Your task to perform on an android device: toggle notification dots Image 0: 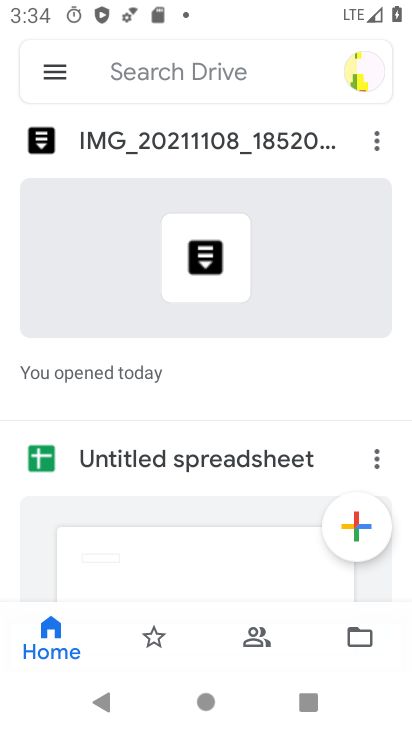
Step 0: press home button
Your task to perform on an android device: toggle notification dots Image 1: 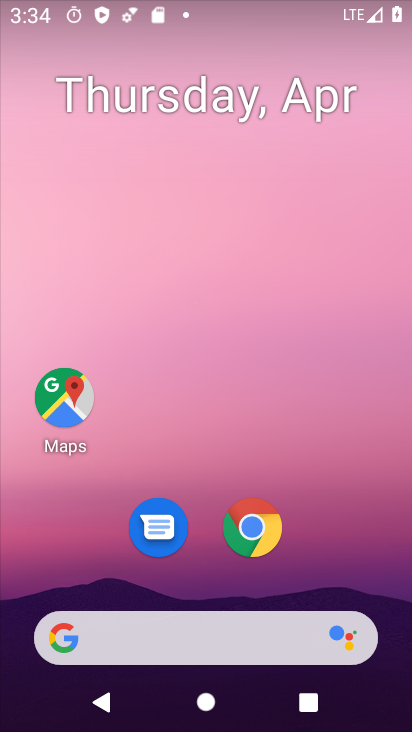
Step 1: drag from (313, 469) to (285, 130)
Your task to perform on an android device: toggle notification dots Image 2: 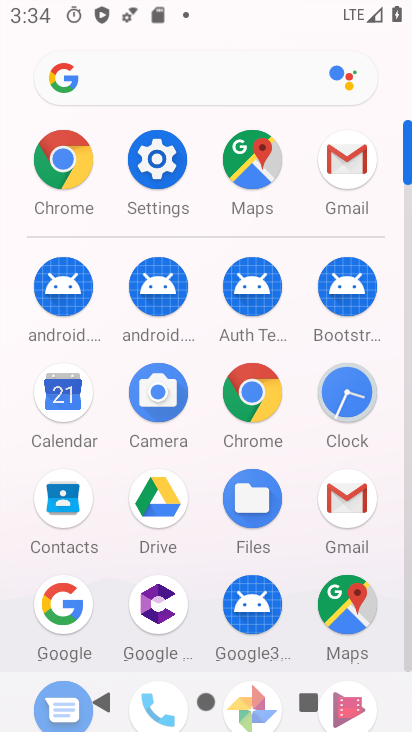
Step 2: click (161, 157)
Your task to perform on an android device: toggle notification dots Image 3: 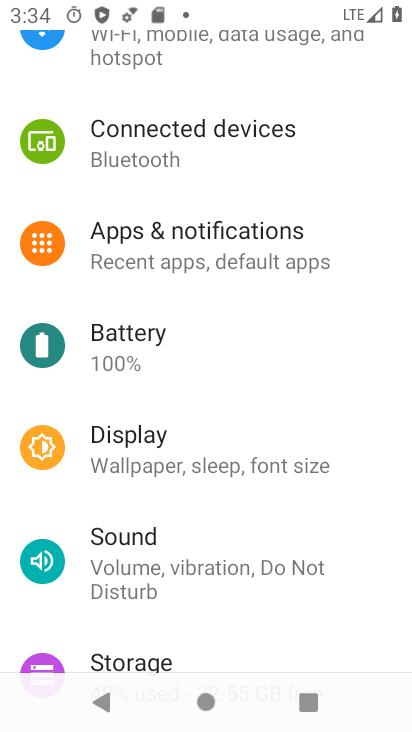
Step 3: drag from (219, 555) to (279, 729)
Your task to perform on an android device: toggle notification dots Image 4: 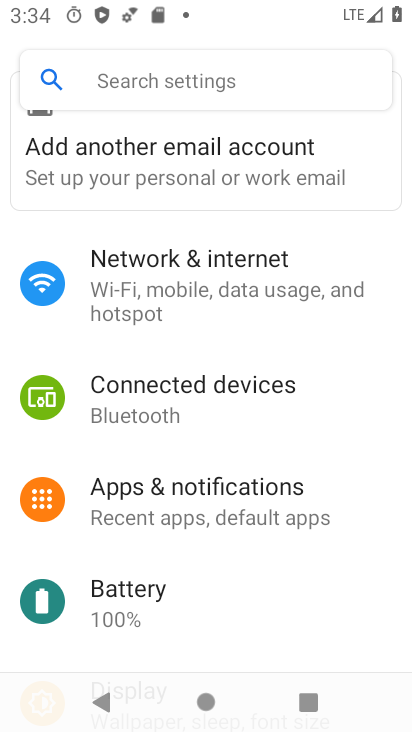
Step 4: click (216, 479)
Your task to perform on an android device: toggle notification dots Image 5: 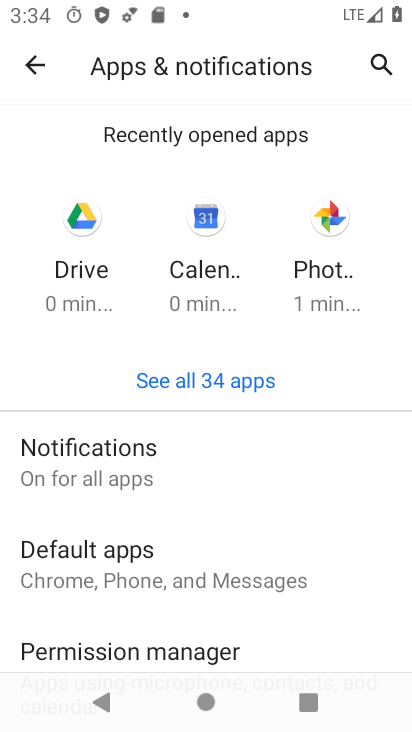
Step 5: click (104, 473)
Your task to perform on an android device: toggle notification dots Image 6: 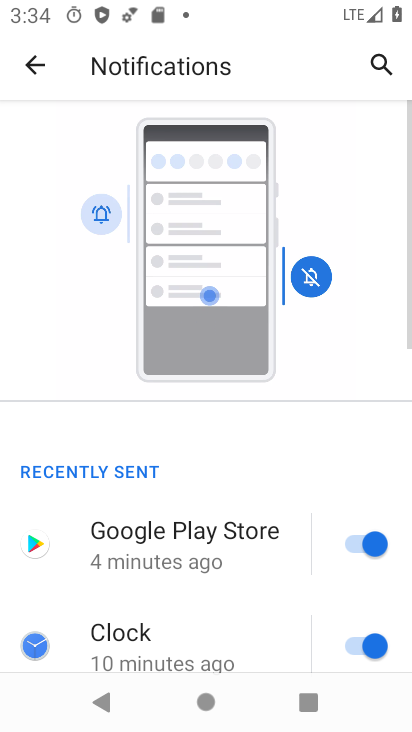
Step 6: drag from (255, 446) to (286, 30)
Your task to perform on an android device: toggle notification dots Image 7: 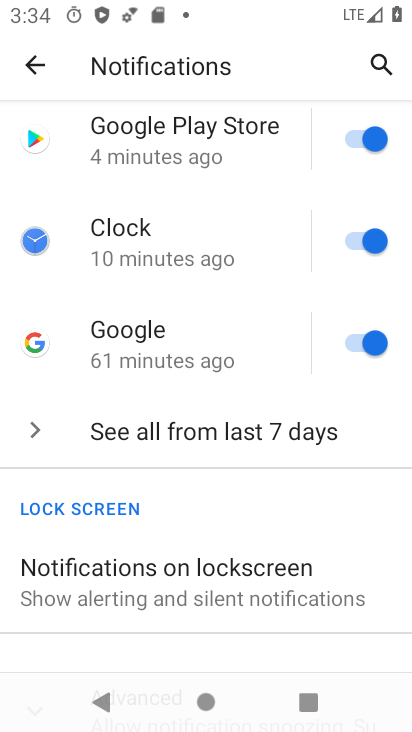
Step 7: drag from (222, 534) to (299, 147)
Your task to perform on an android device: toggle notification dots Image 8: 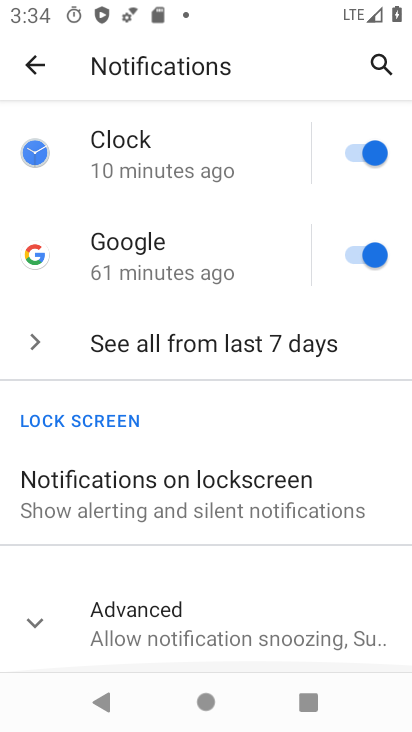
Step 8: click (164, 585)
Your task to perform on an android device: toggle notification dots Image 9: 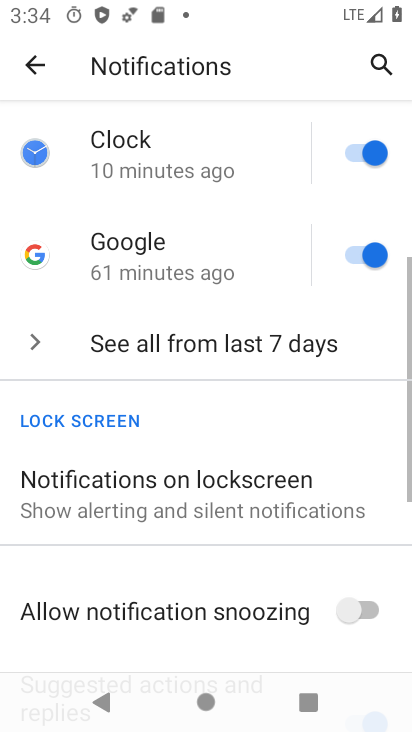
Step 9: drag from (251, 582) to (256, 133)
Your task to perform on an android device: toggle notification dots Image 10: 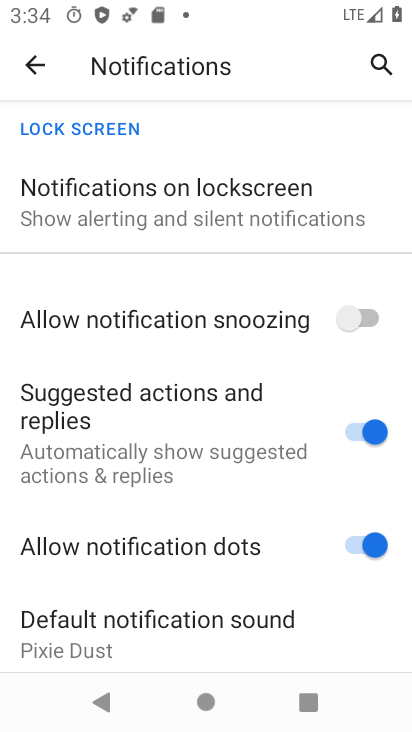
Step 10: click (343, 541)
Your task to perform on an android device: toggle notification dots Image 11: 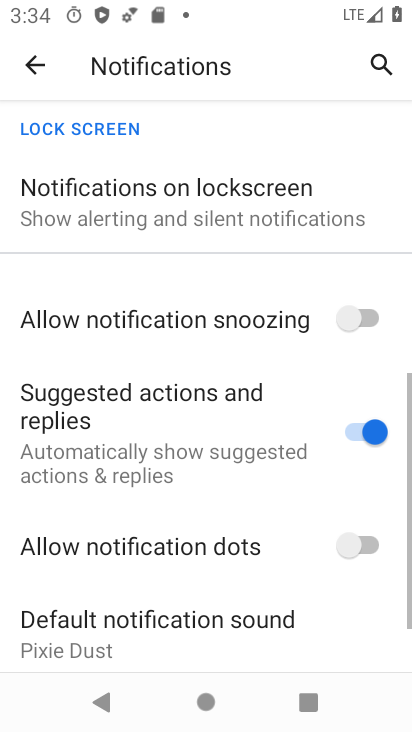
Step 11: task complete